Your task to perform on an android device: uninstall "Adobe Acrobat Reader" Image 0: 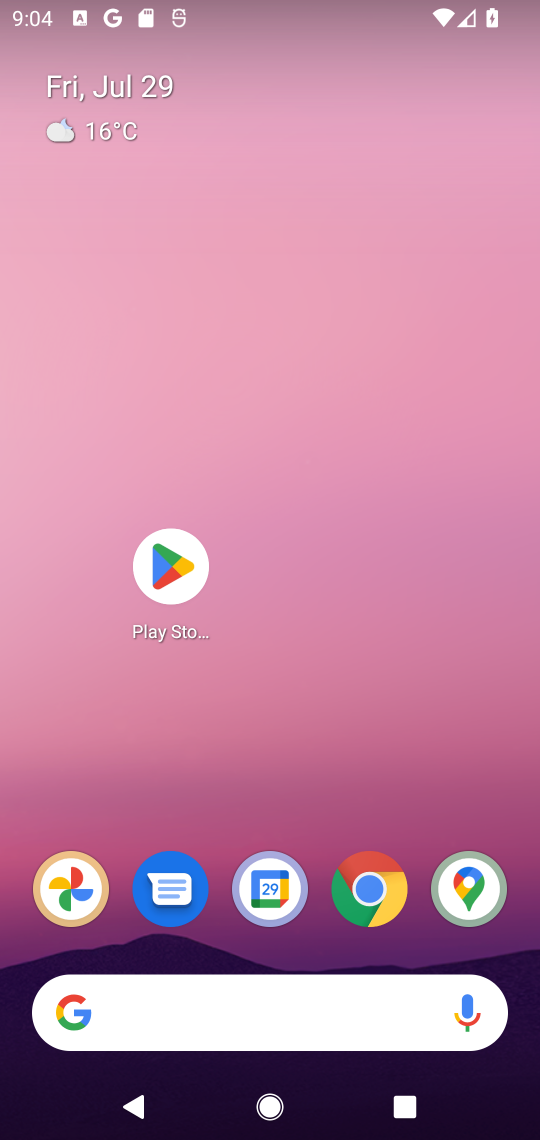
Step 0: press home button
Your task to perform on an android device: uninstall "Adobe Acrobat Reader" Image 1: 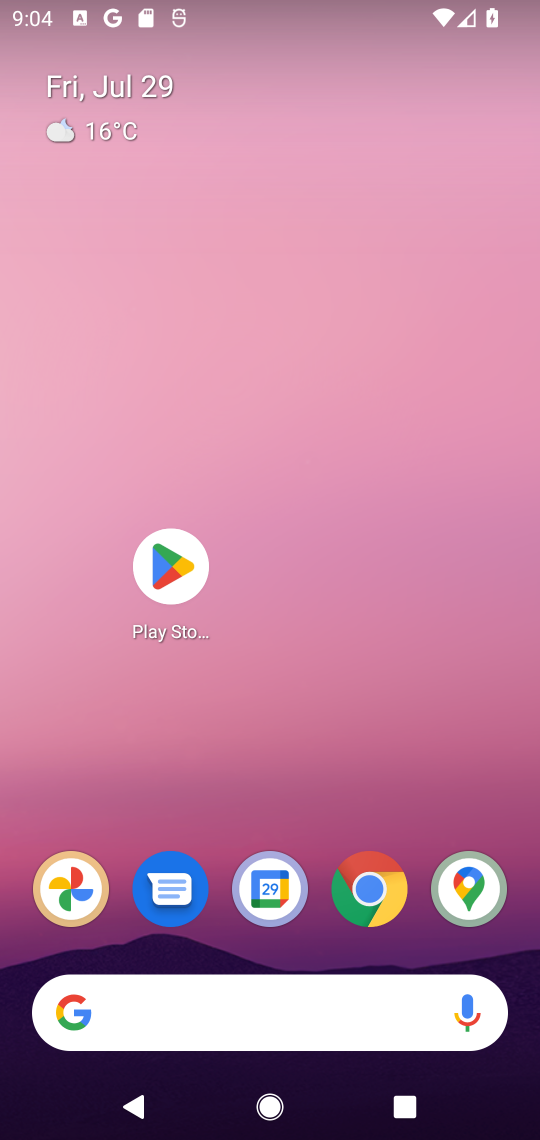
Step 1: click (162, 565)
Your task to perform on an android device: uninstall "Adobe Acrobat Reader" Image 2: 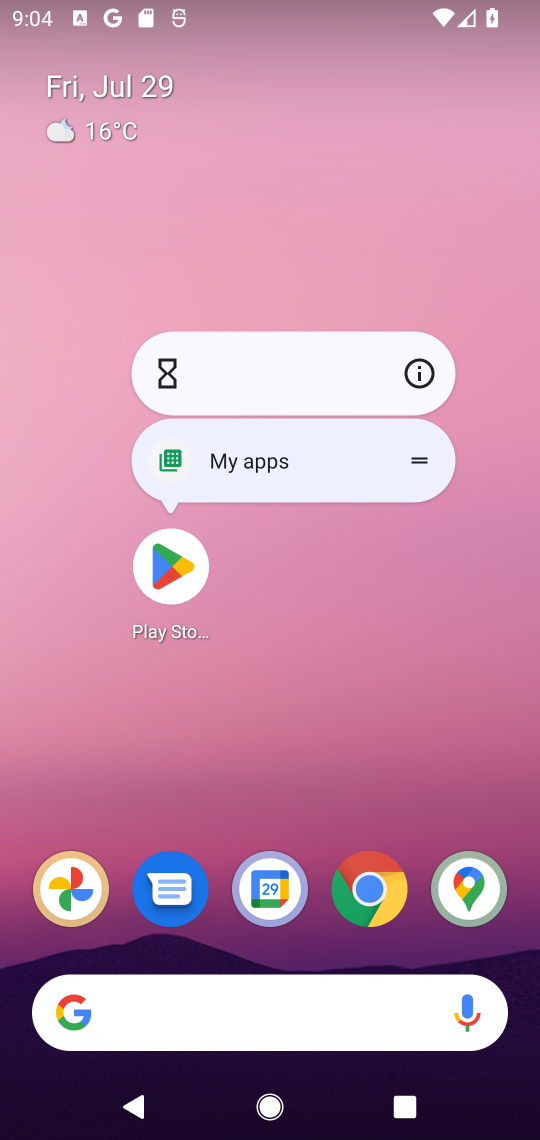
Step 2: click (162, 565)
Your task to perform on an android device: uninstall "Adobe Acrobat Reader" Image 3: 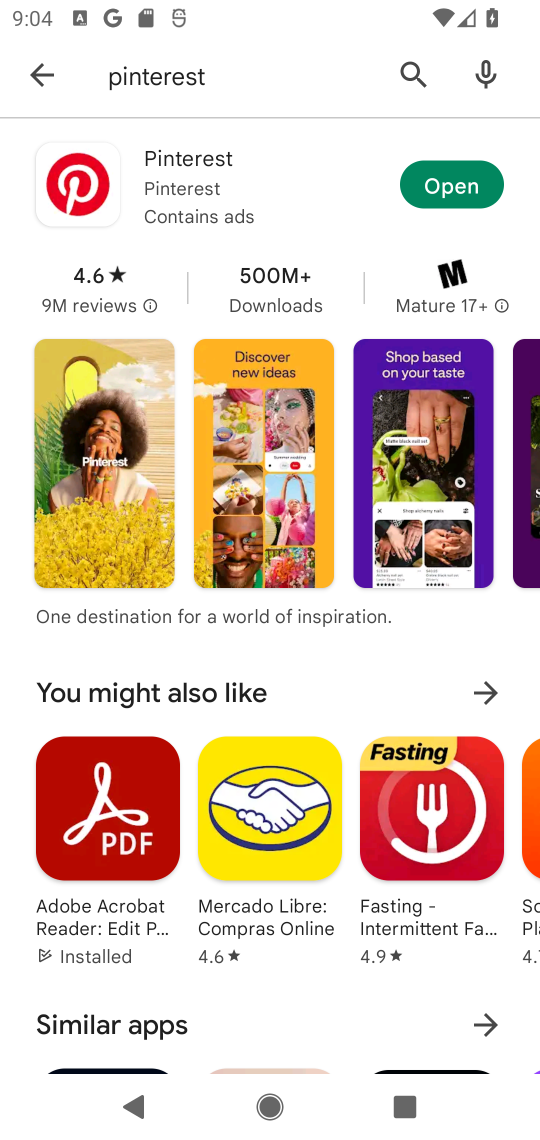
Step 3: click (407, 66)
Your task to perform on an android device: uninstall "Adobe Acrobat Reader" Image 4: 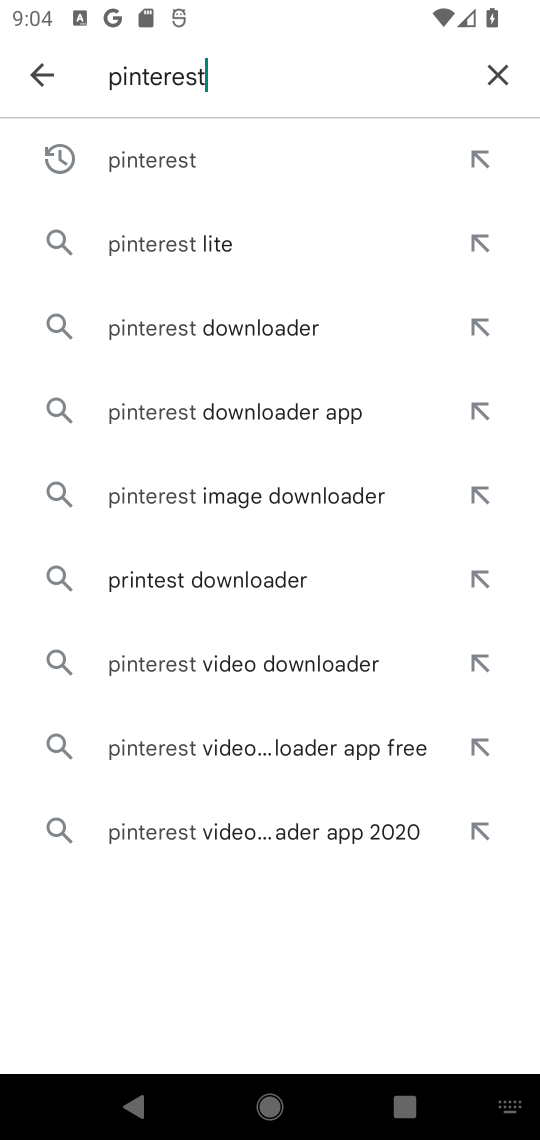
Step 4: click (497, 68)
Your task to perform on an android device: uninstall "Adobe Acrobat Reader" Image 5: 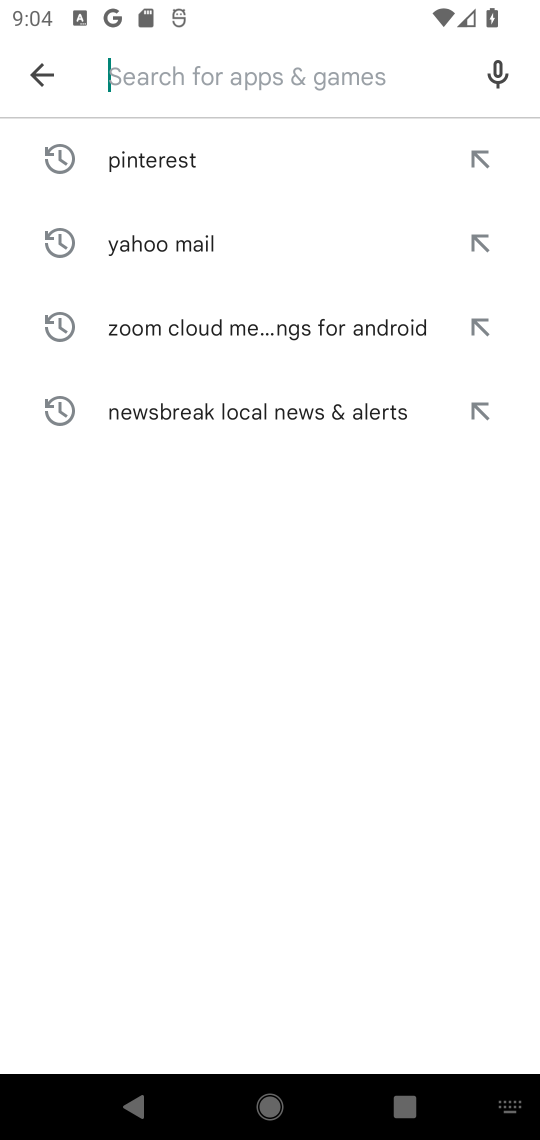
Step 5: type "Adobe Acrobat Reader"
Your task to perform on an android device: uninstall "Adobe Acrobat Reader" Image 6: 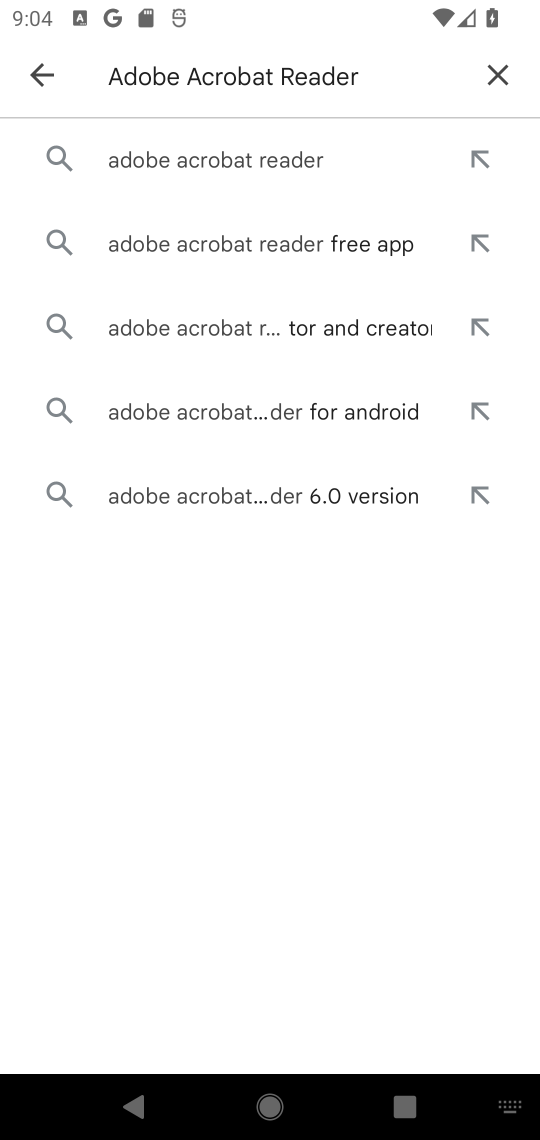
Step 6: click (234, 154)
Your task to perform on an android device: uninstall "Adobe Acrobat Reader" Image 7: 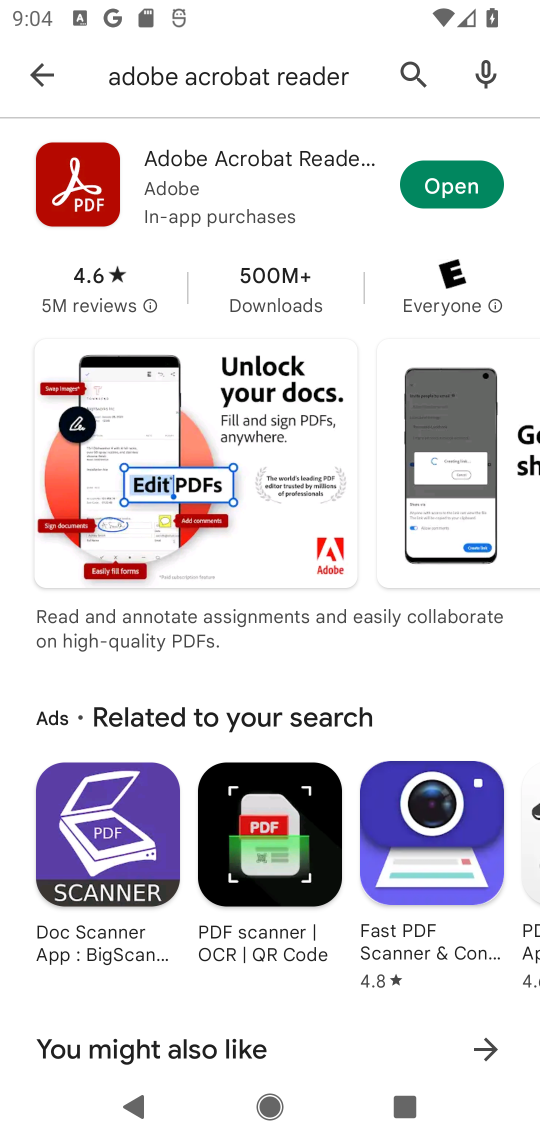
Step 7: click (102, 200)
Your task to perform on an android device: uninstall "Adobe Acrobat Reader" Image 8: 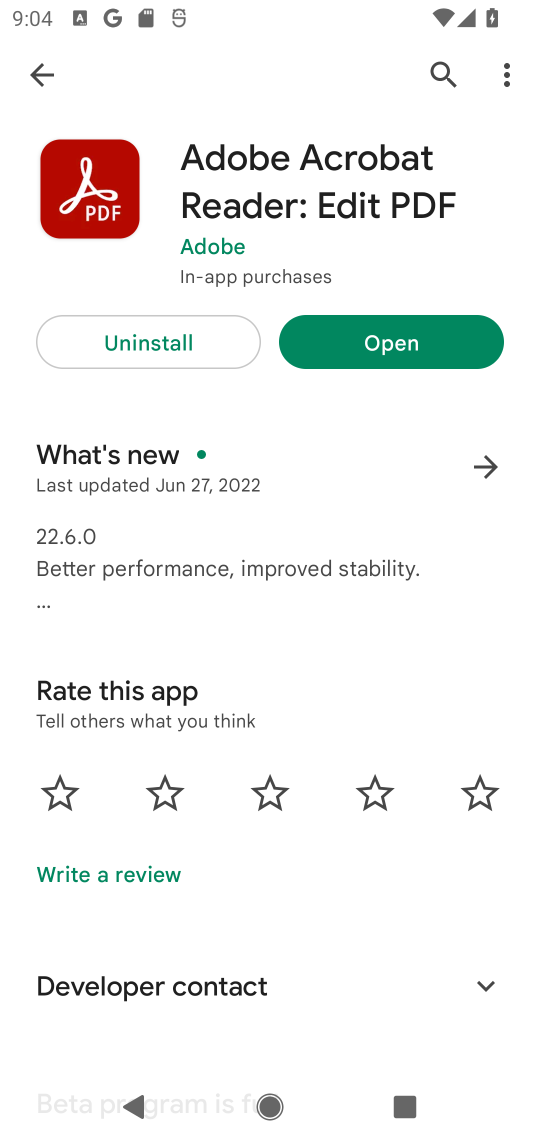
Step 8: click (162, 335)
Your task to perform on an android device: uninstall "Adobe Acrobat Reader" Image 9: 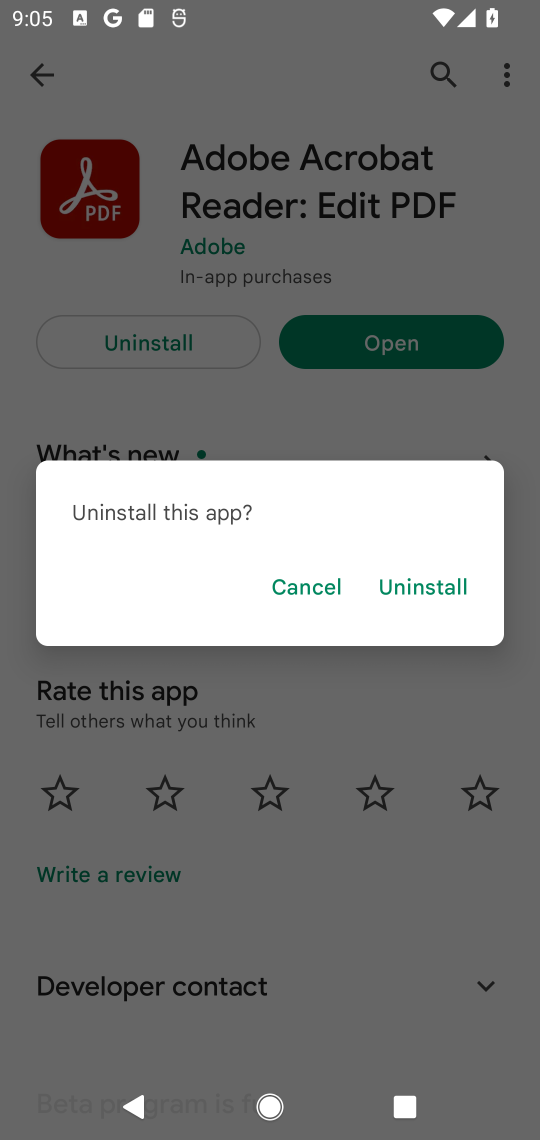
Step 9: click (408, 589)
Your task to perform on an android device: uninstall "Adobe Acrobat Reader" Image 10: 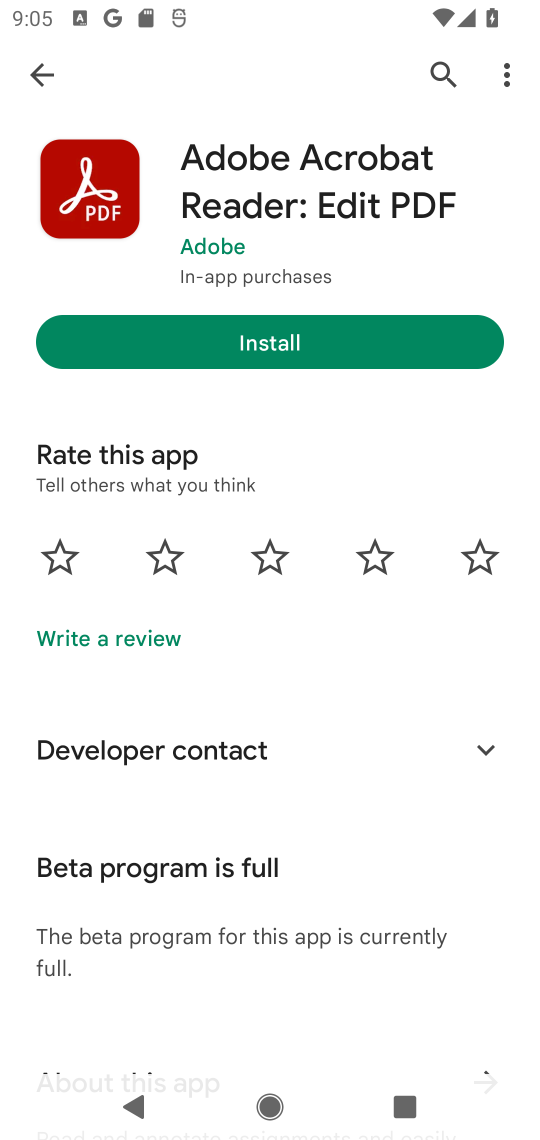
Step 10: task complete